Your task to perform on an android device: Is it going to rain this weekend? Image 0: 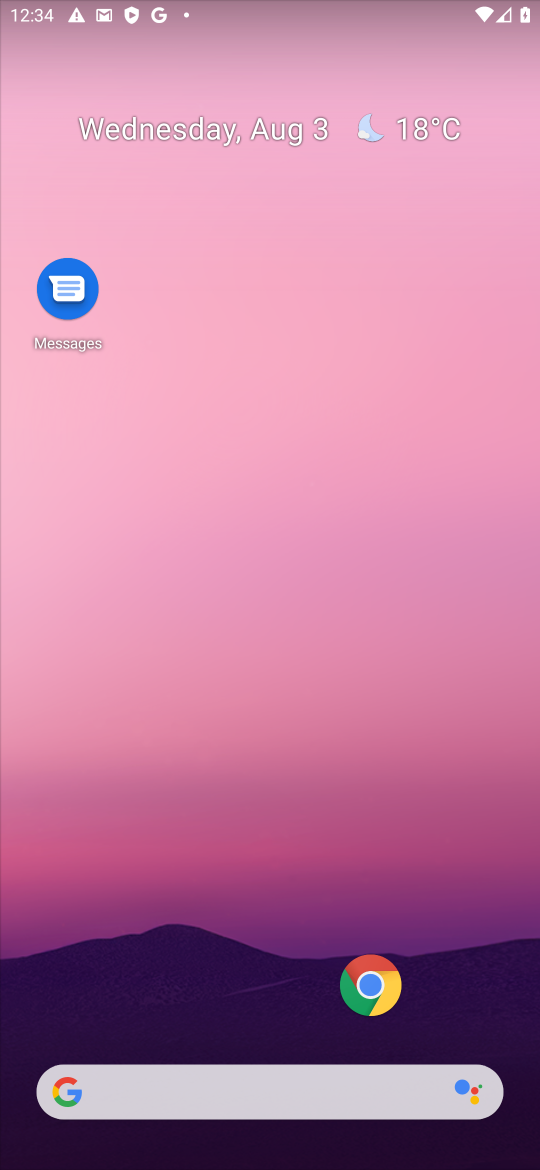
Step 0: click (294, 1101)
Your task to perform on an android device: Is it going to rain this weekend? Image 1: 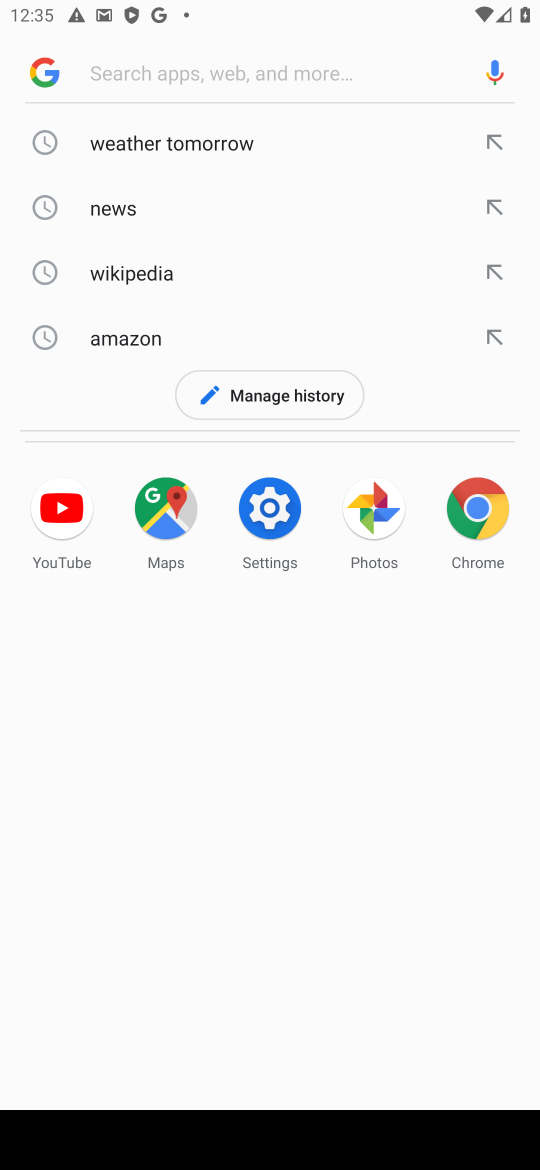
Step 1: click (188, 170)
Your task to perform on an android device: Is it going to rain this weekend? Image 2: 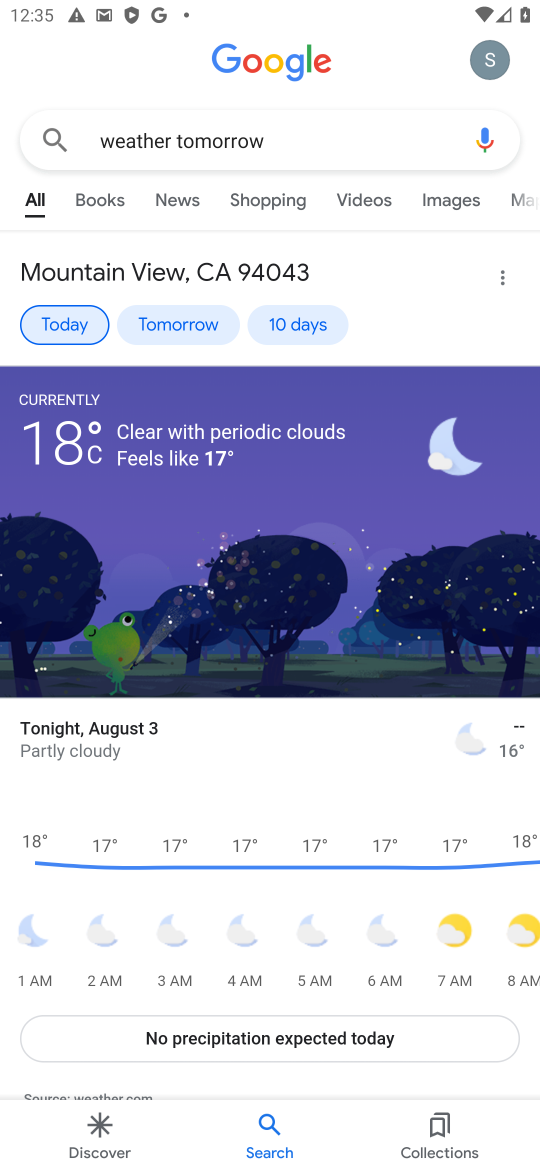
Step 2: task complete